Your task to perform on an android device: star an email in the gmail app Image 0: 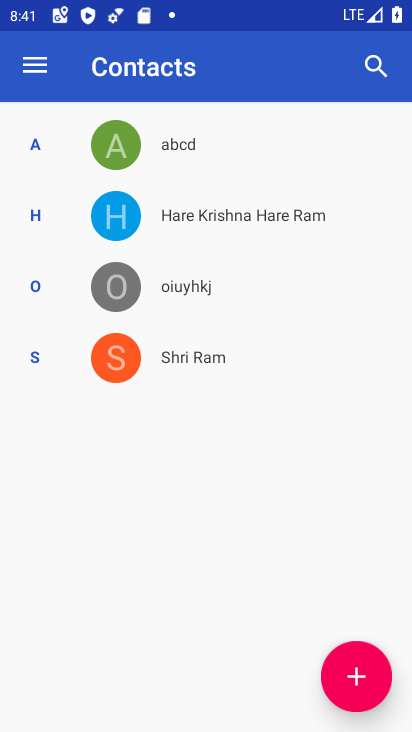
Step 0: press home button
Your task to perform on an android device: star an email in the gmail app Image 1: 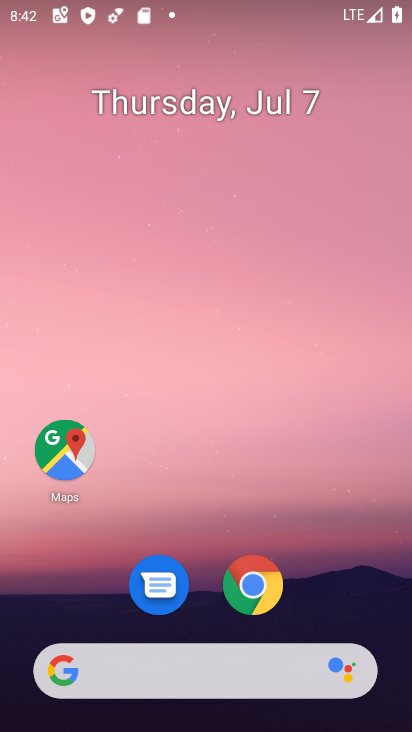
Step 1: drag from (235, 494) to (243, 31)
Your task to perform on an android device: star an email in the gmail app Image 2: 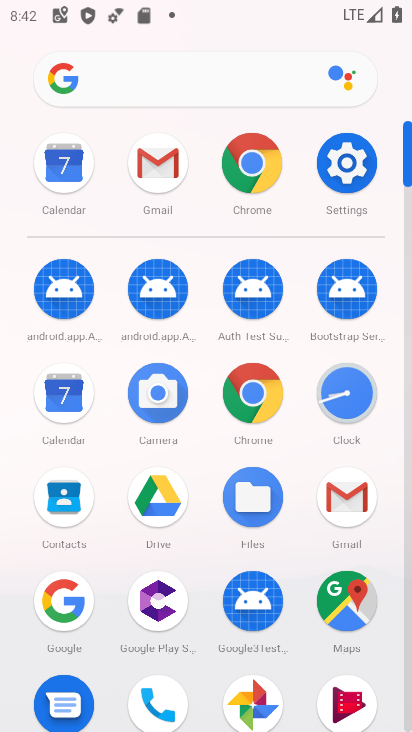
Step 2: click (158, 166)
Your task to perform on an android device: star an email in the gmail app Image 3: 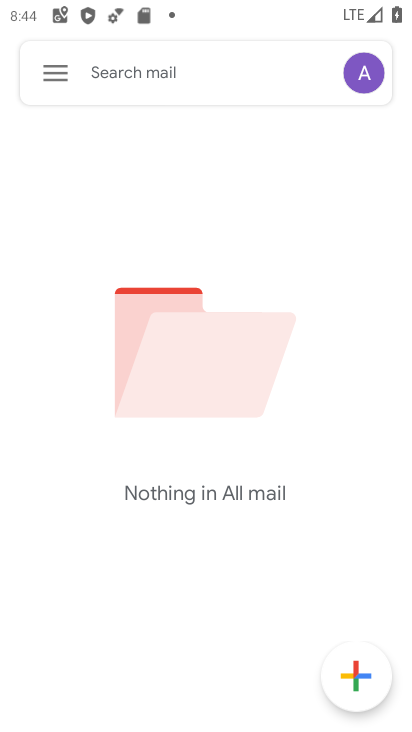
Step 3: task complete